Your task to perform on an android device: Go to settings Image 0: 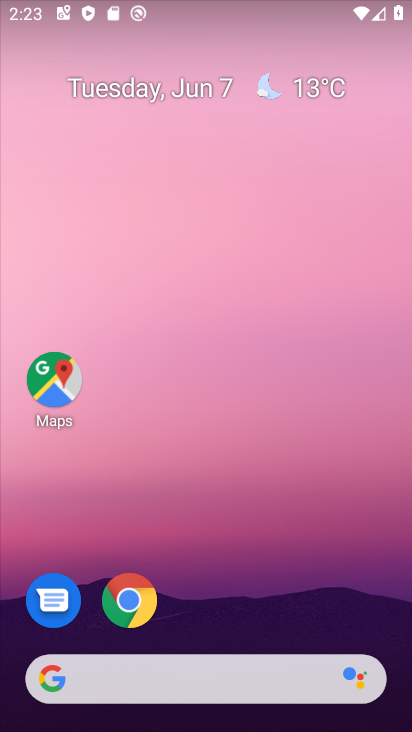
Step 0: drag from (239, 586) to (234, 108)
Your task to perform on an android device: Go to settings Image 1: 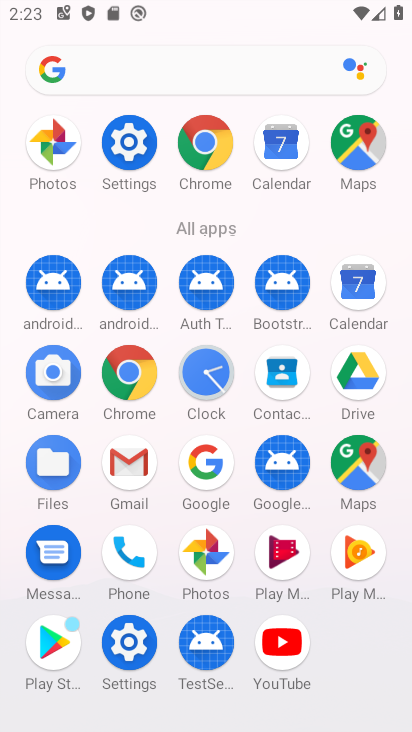
Step 1: click (129, 128)
Your task to perform on an android device: Go to settings Image 2: 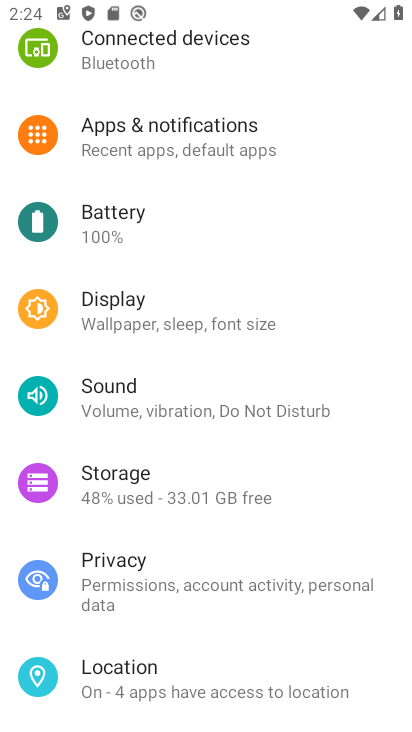
Step 2: task complete